Your task to perform on an android device: Do I have any events today? Image 0: 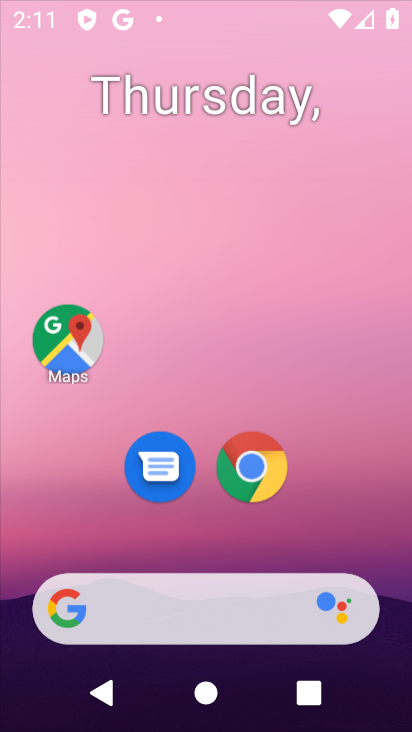
Step 0: click (278, 96)
Your task to perform on an android device: Do I have any events today? Image 1: 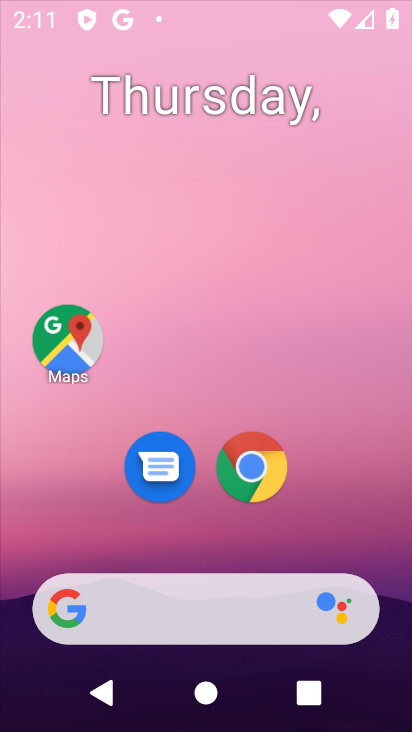
Step 1: drag from (159, 546) to (224, 107)
Your task to perform on an android device: Do I have any events today? Image 2: 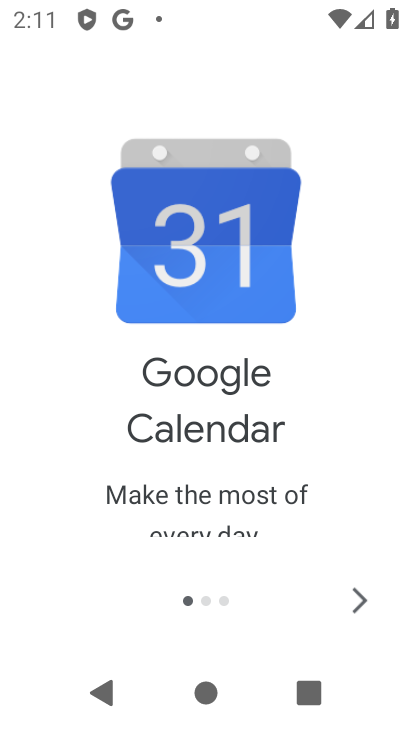
Step 2: press home button
Your task to perform on an android device: Do I have any events today? Image 3: 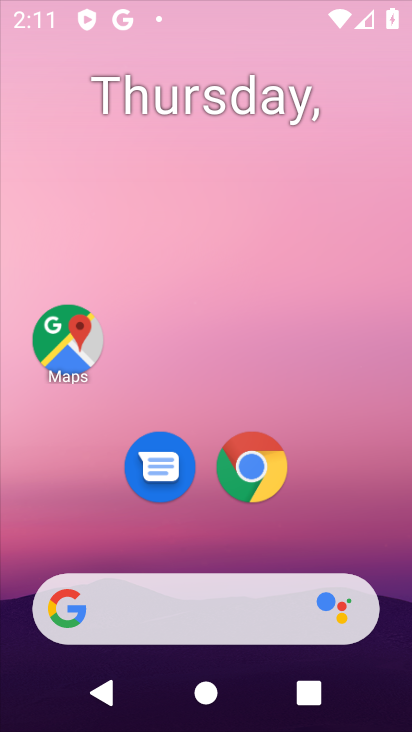
Step 3: drag from (200, 548) to (269, 106)
Your task to perform on an android device: Do I have any events today? Image 4: 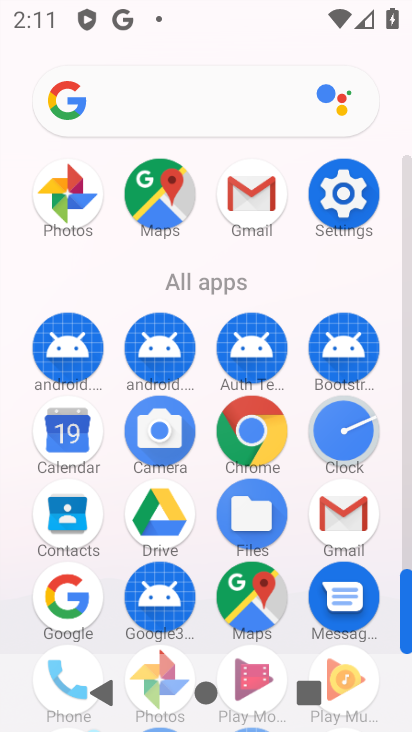
Step 4: click (66, 429)
Your task to perform on an android device: Do I have any events today? Image 5: 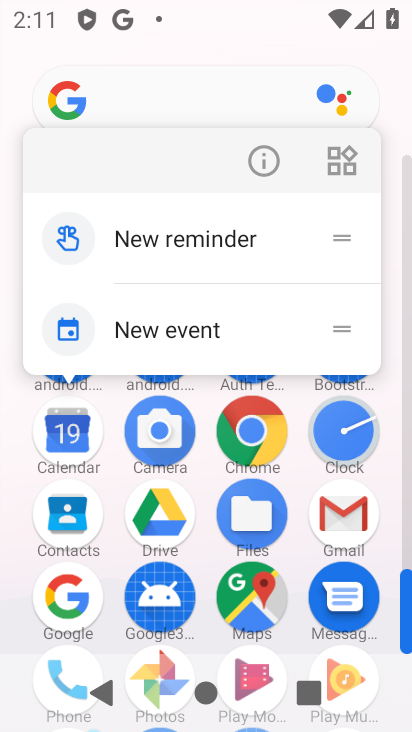
Step 5: click (281, 160)
Your task to perform on an android device: Do I have any events today? Image 6: 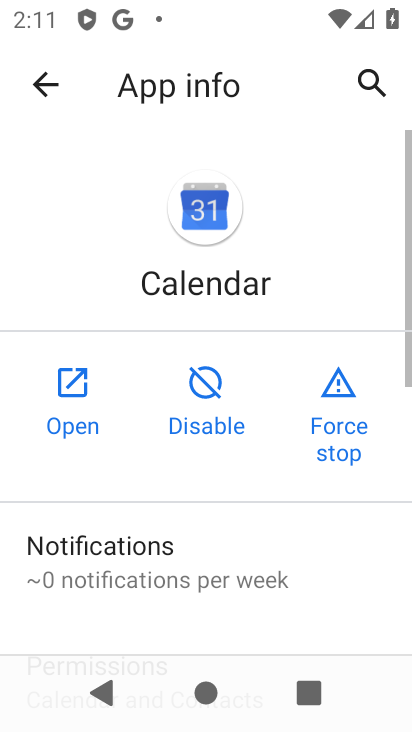
Step 6: click (101, 375)
Your task to perform on an android device: Do I have any events today? Image 7: 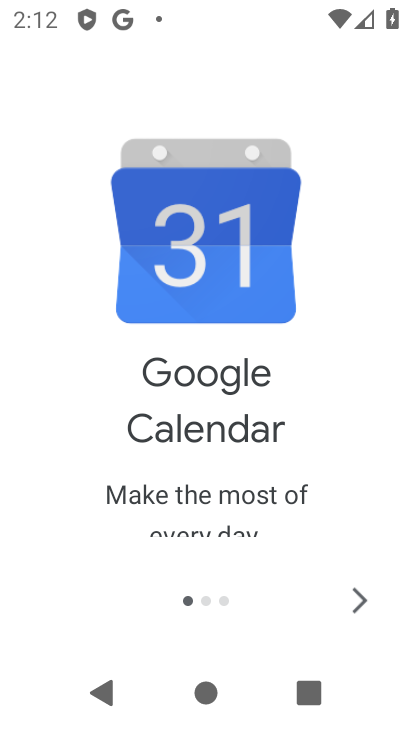
Step 7: click (356, 610)
Your task to perform on an android device: Do I have any events today? Image 8: 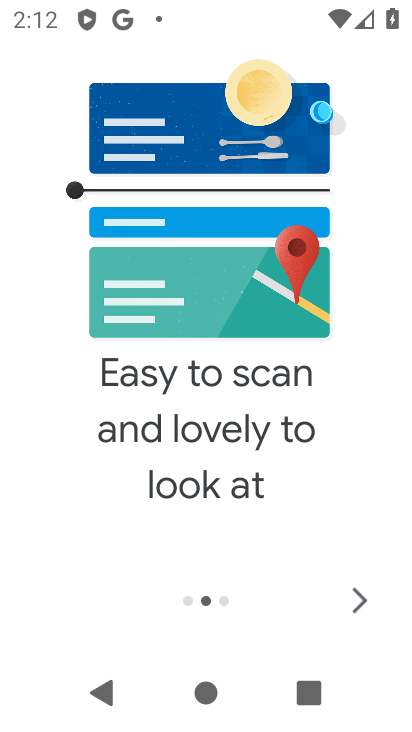
Step 8: click (359, 593)
Your task to perform on an android device: Do I have any events today? Image 9: 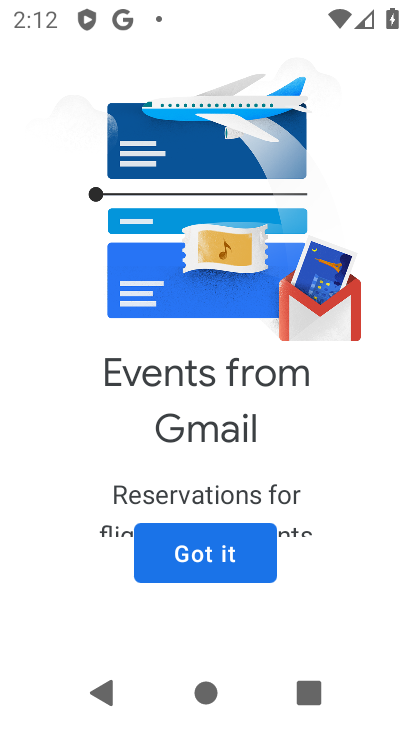
Step 9: click (220, 555)
Your task to perform on an android device: Do I have any events today? Image 10: 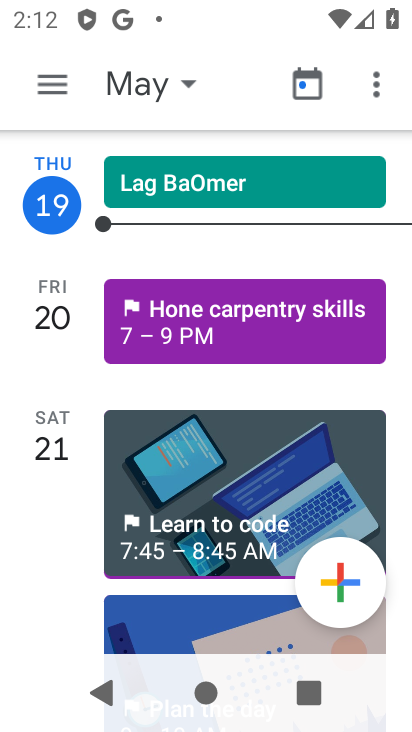
Step 10: click (105, 90)
Your task to perform on an android device: Do I have any events today? Image 11: 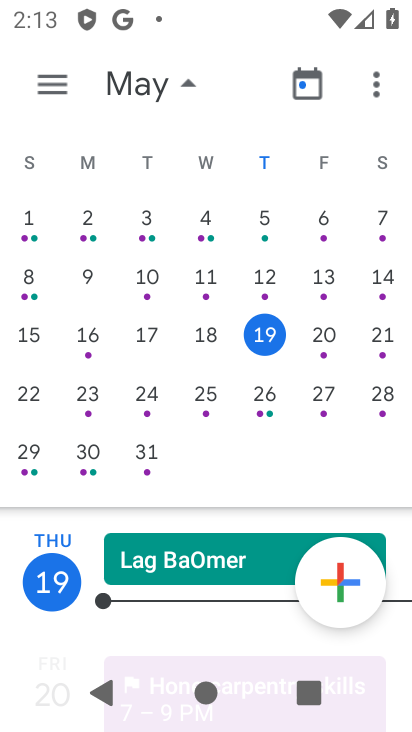
Step 11: task complete